Your task to perform on an android device: turn vacation reply on in the gmail app Image 0: 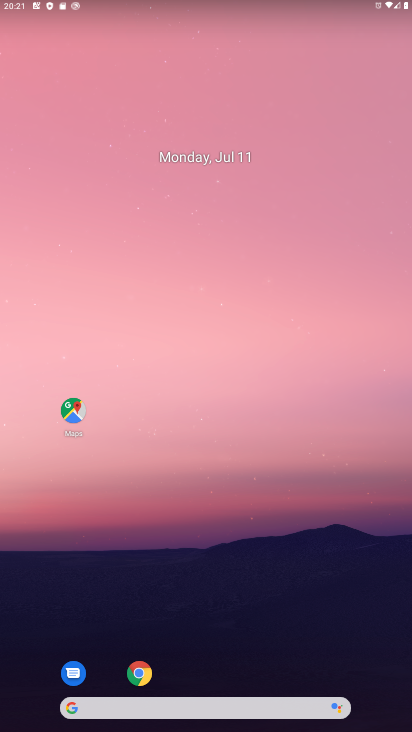
Step 0: press home button
Your task to perform on an android device: turn vacation reply on in the gmail app Image 1: 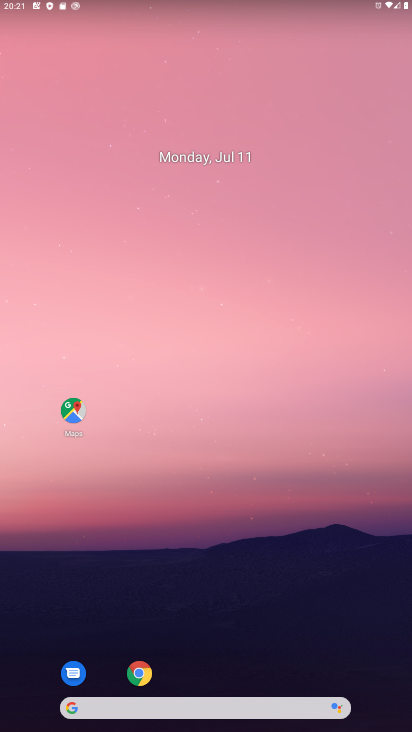
Step 1: drag from (199, 687) to (255, 119)
Your task to perform on an android device: turn vacation reply on in the gmail app Image 2: 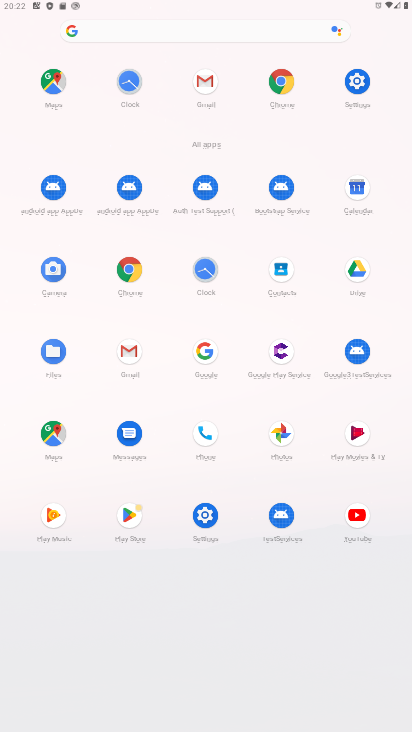
Step 2: click (202, 78)
Your task to perform on an android device: turn vacation reply on in the gmail app Image 3: 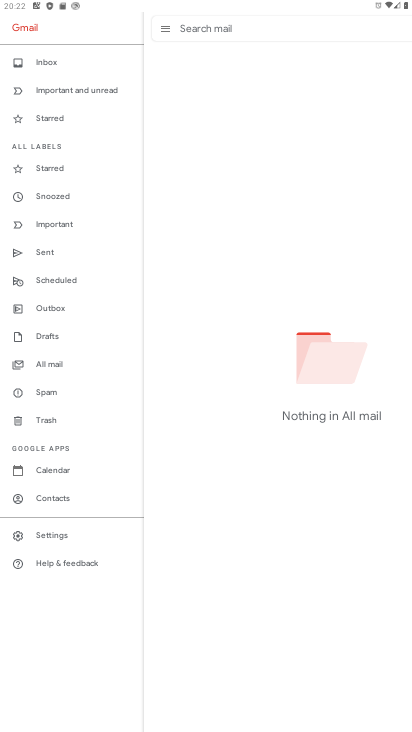
Step 3: click (61, 535)
Your task to perform on an android device: turn vacation reply on in the gmail app Image 4: 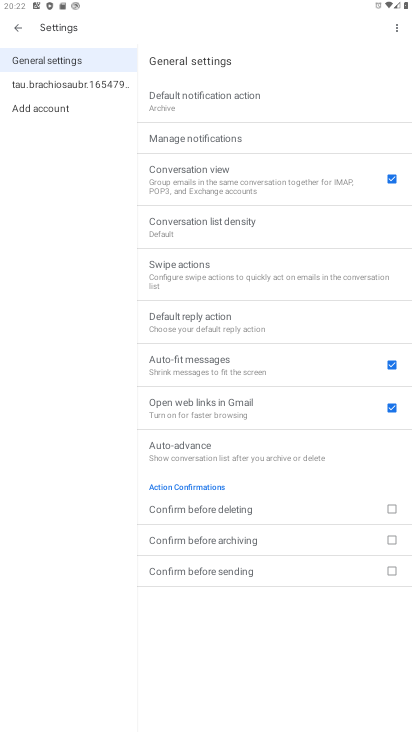
Step 4: click (81, 86)
Your task to perform on an android device: turn vacation reply on in the gmail app Image 5: 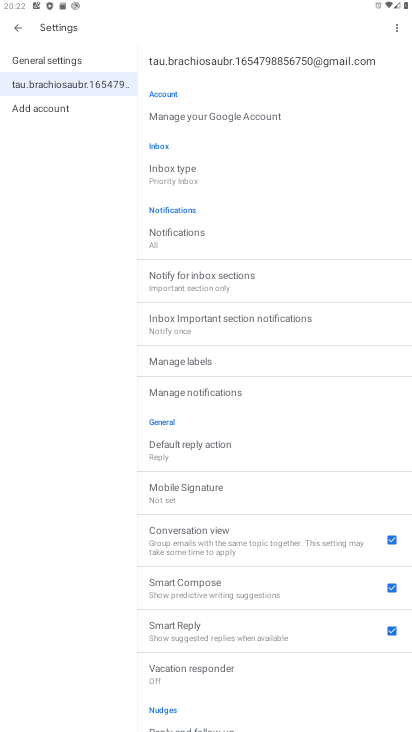
Step 5: click (243, 674)
Your task to perform on an android device: turn vacation reply on in the gmail app Image 6: 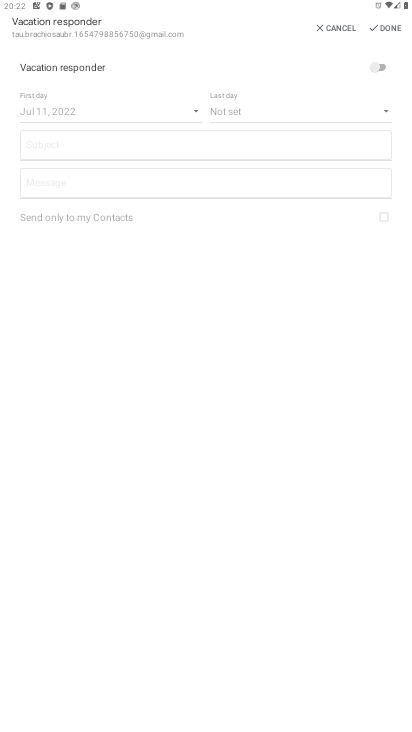
Step 6: click (384, 27)
Your task to perform on an android device: turn vacation reply on in the gmail app Image 7: 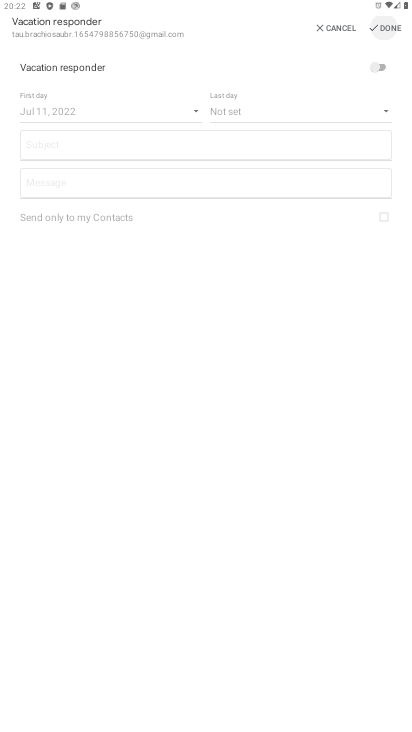
Step 7: task complete